Your task to perform on an android device: Search for vegetarian restaurants on Maps Image 0: 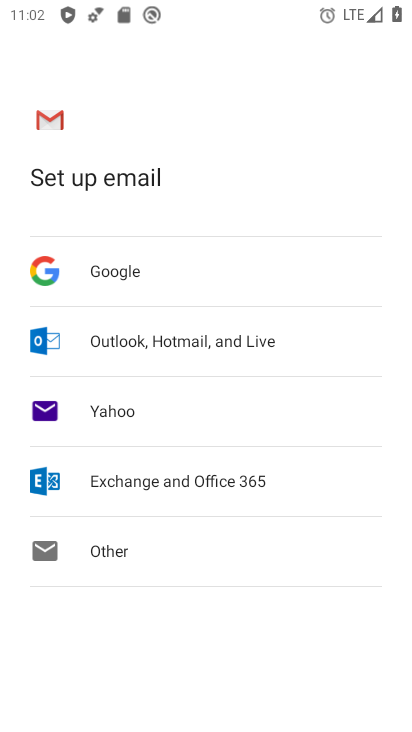
Step 0: press home button
Your task to perform on an android device: Search for vegetarian restaurants on Maps Image 1: 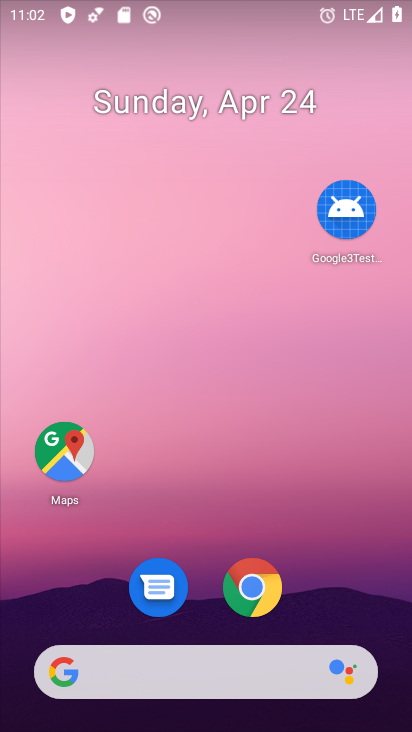
Step 1: drag from (342, 551) to (308, 40)
Your task to perform on an android device: Search for vegetarian restaurants on Maps Image 2: 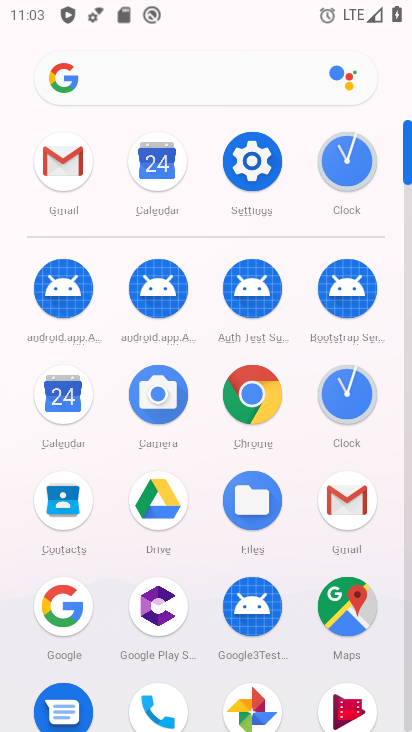
Step 2: click (339, 594)
Your task to perform on an android device: Search for vegetarian restaurants on Maps Image 3: 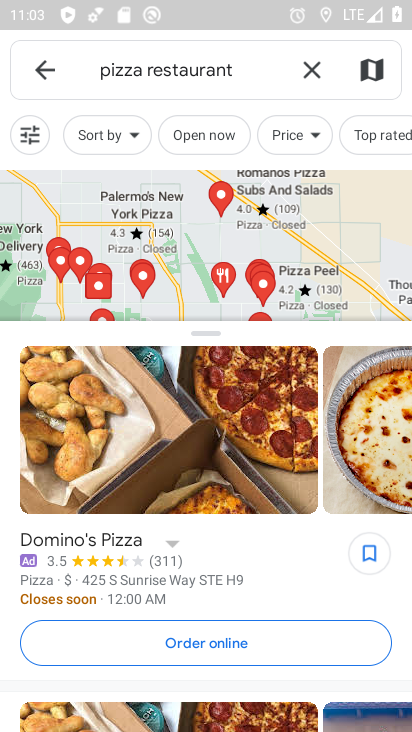
Step 3: click (311, 74)
Your task to perform on an android device: Search for vegetarian restaurants on Maps Image 4: 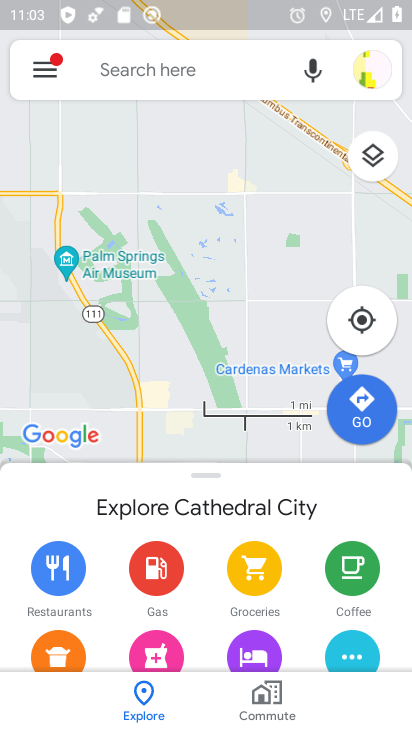
Step 4: click (196, 67)
Your task to perform on an android device: Search for vegetarian restaurants on Maps Image 5: 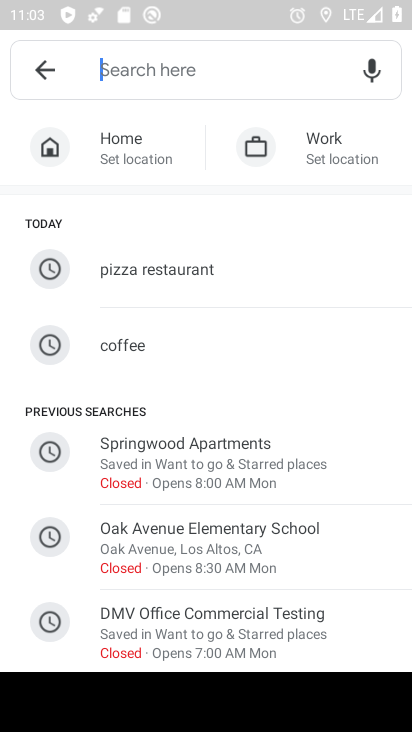
Step 5: type "vegetarian restaurants"
Your task to perform on an android device: Search for vegetarian restaurants on Maps Image 6: 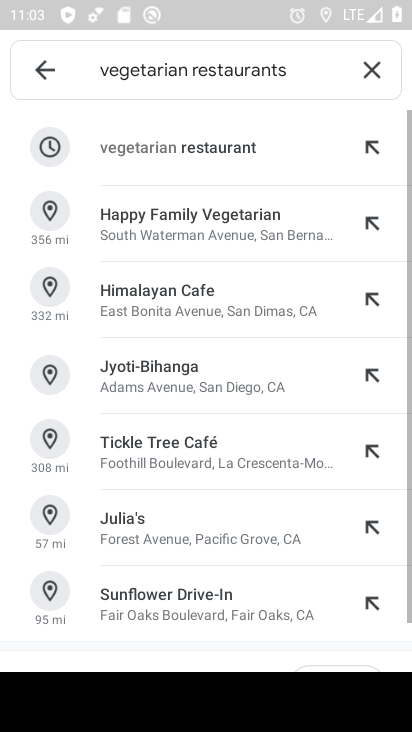
Step 6: click (210, 156)
Your task to perform on an android device: Search for vegetarian restaurants on Maps Image 7: 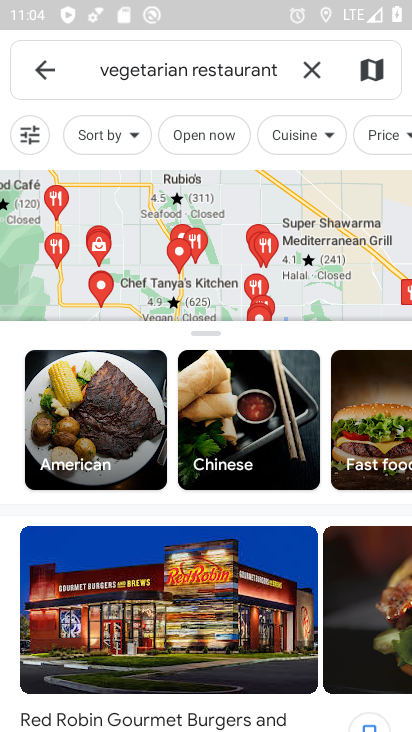
Step 7: task complete